Your task to perform on an android device: delete location history Image 0: 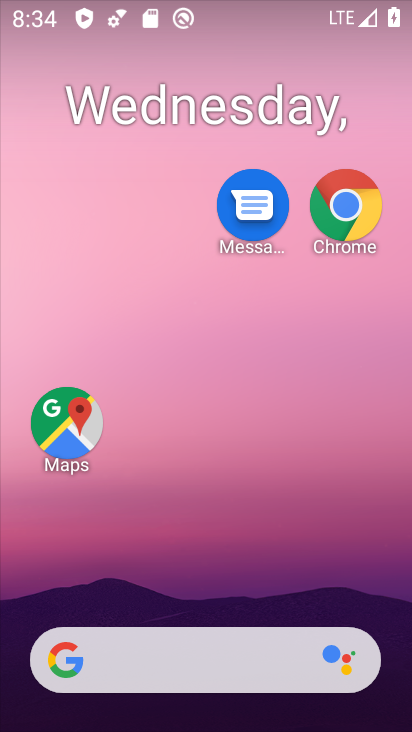
Step 0: click (366, 174)
Your task to perform on an android device: delete location history Image 1: 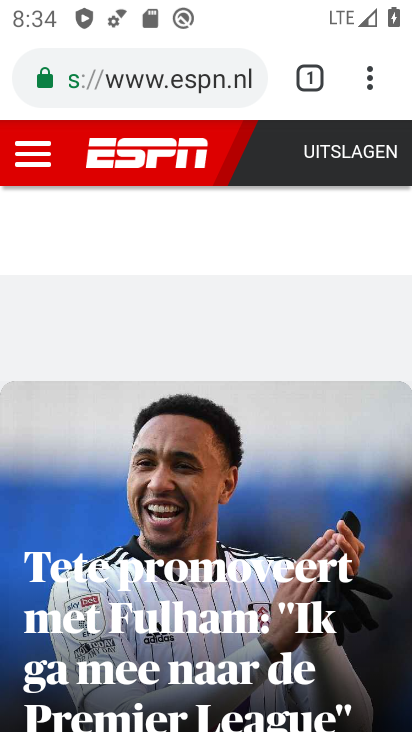
Step 1: drag from (186, 609) to (293, 142)
Your task to perform on an android device: delete location history Image 2: 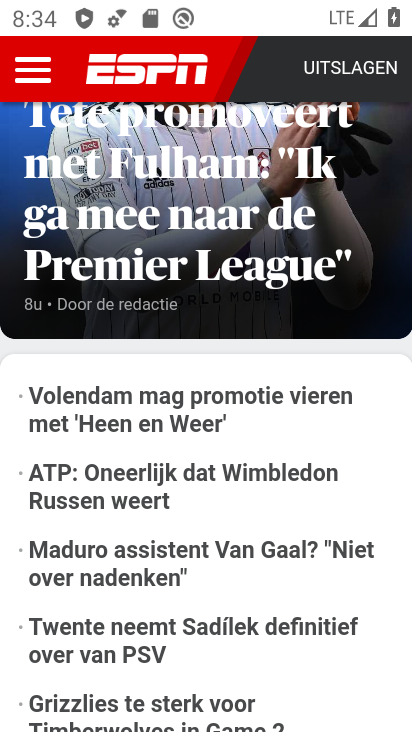
Step 2: drag from (158, 634) to (288, 144)
Your task to perform on an android device: delete location history Image 3: 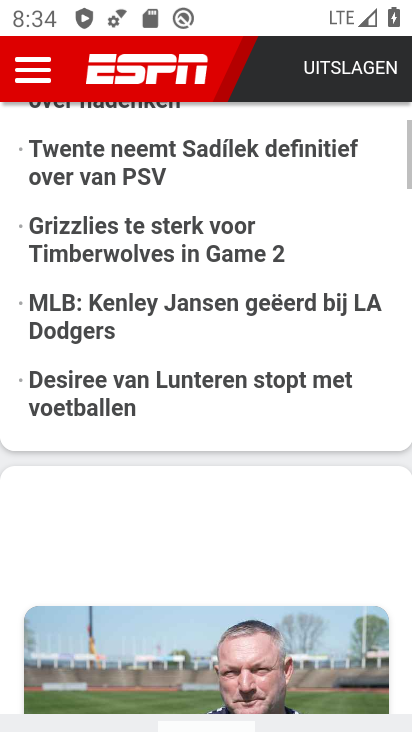
Step 3: drag from (294, 161) to (298, 438)
Your task to perform on an android device: delete location history Image 4: 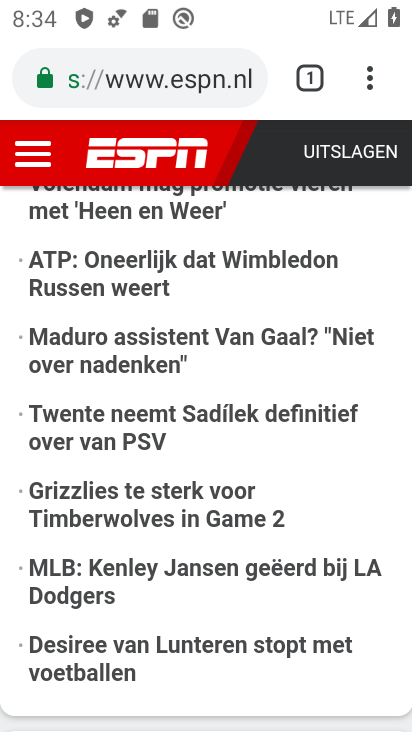
Step 4: press home button
Your task to perform on an android device: delete location history Image 5: 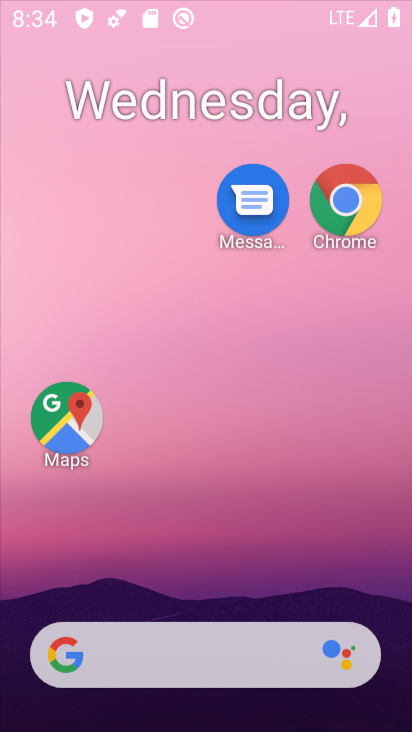
Step 5: drag from (200, 630) to (301, 133)
Your task to perform on an android device: delete location history Image 6: 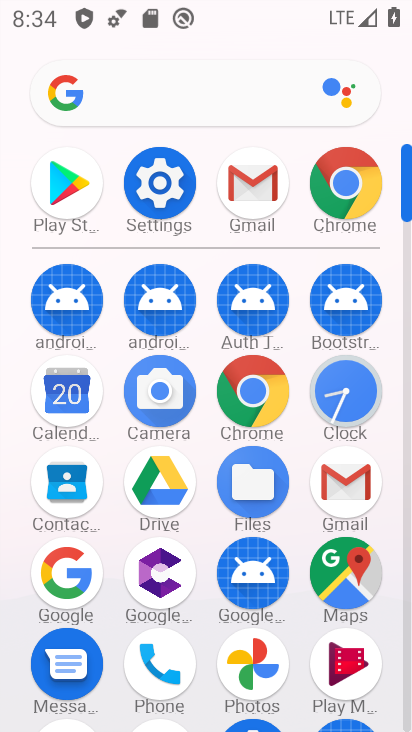
Step 6: drag from (205, 674) to (269, 275)
Your task to perform on an android device: delete location history Image 7: 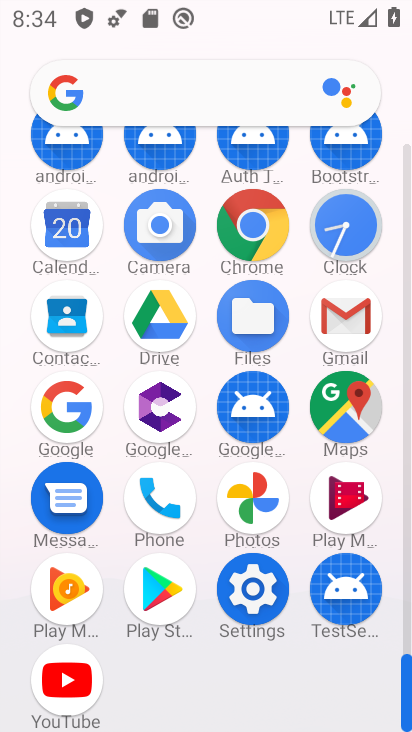
Step 7: click (244, 599)
Your task to perform on an android device: delete location history Image 8: 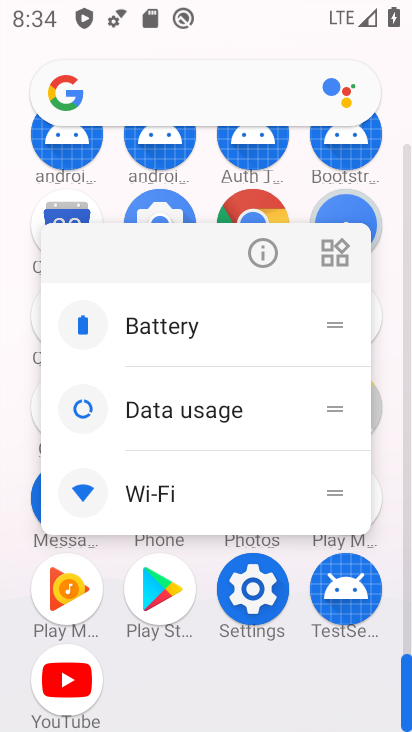
Step 8: click (262, 238)
Your task to perform on an android device: delete location history Image 9: 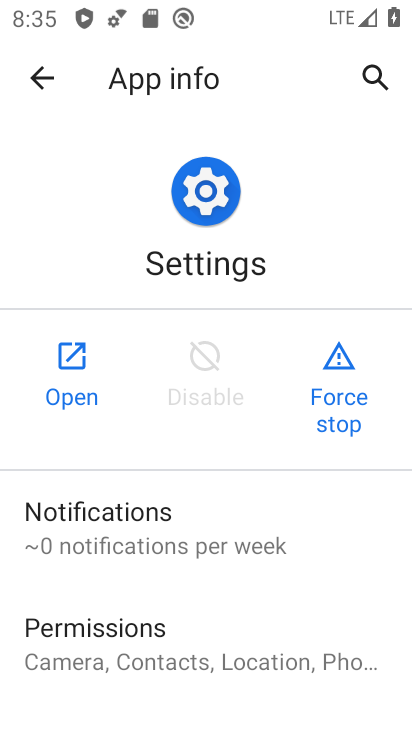
Step 9: click (60, 362)
Your task to perform on an android device: delete location history Image 10: 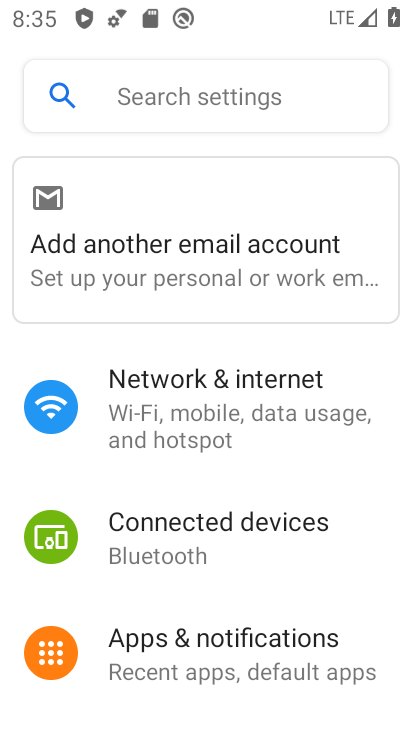
Step 10: drag from (221, 592) to (317, 128)
Your task to perform on an android device: delete location history Image 11: 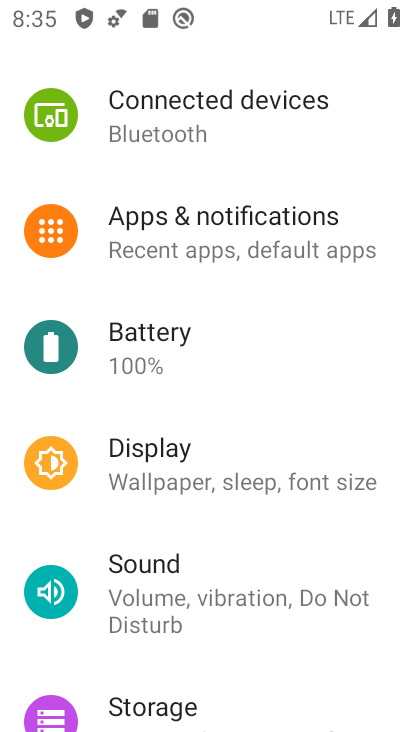
Step 11: drag from (220, 565) to (363, 39)
Your task to perform on an android device: delete location history Image 12: 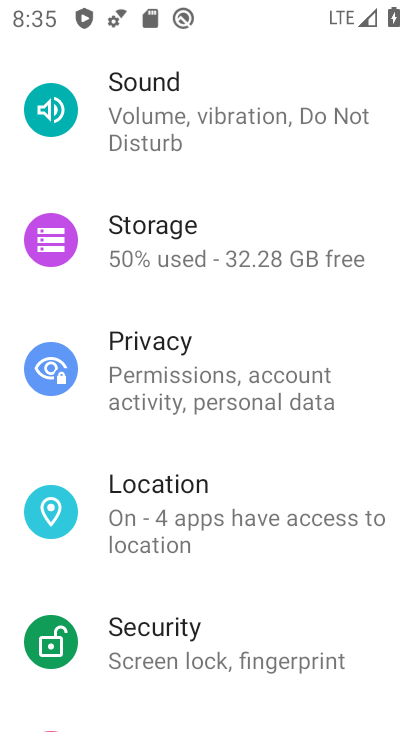
Step 12: click (201, 487)
Your task to perform on an android device: delete location history Image 13: 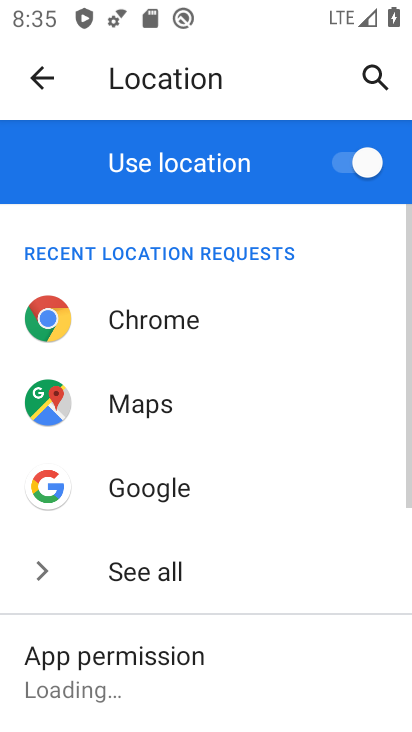
Step 13: drag from (201, 643) to (405, 74)
Your task to perform on an android device: delete location history Image 14: 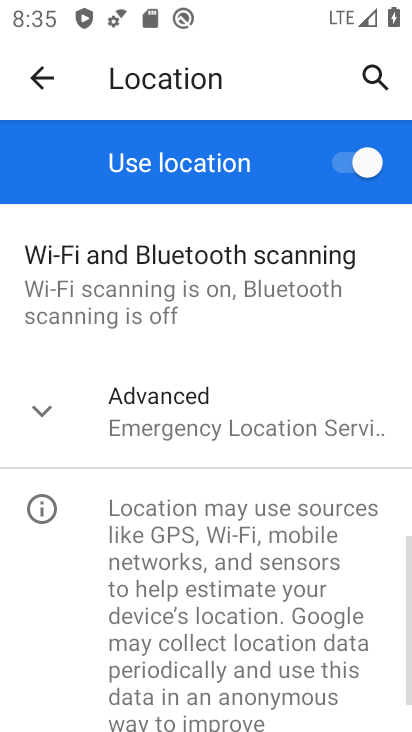
Step 14: click (181, 451)
Your task to perform on an android device: delete location history Image 15: 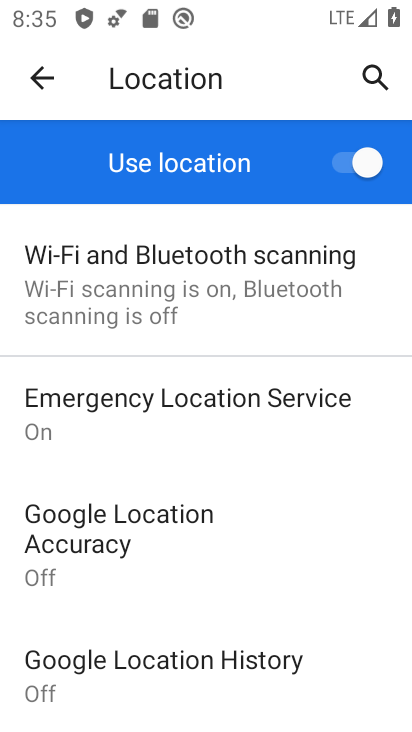
Step 15: click (154, 664)
Your task to perform on an android device: delete location history Image 16: 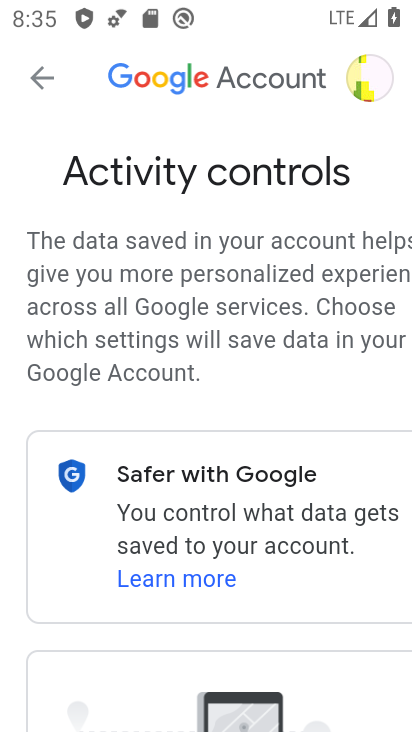
Step 16: drag from (253, 578) to (348, 108)
Your task to perform on an android device: delete location history Image 17: 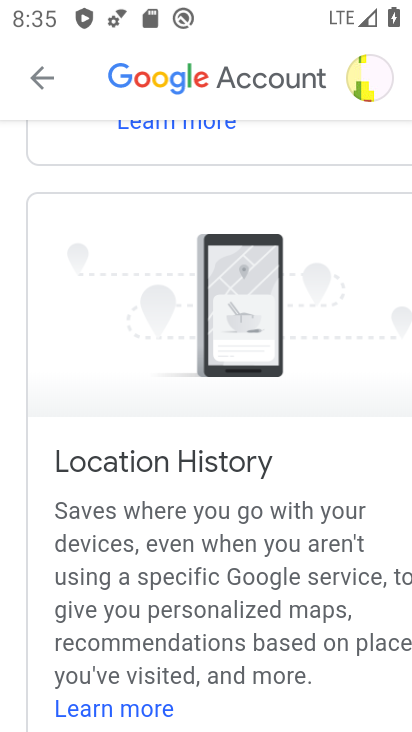
Step 17: drag from (184, 546) to (346, 69)
Your task to perform on an android device: delete location history Image 18: 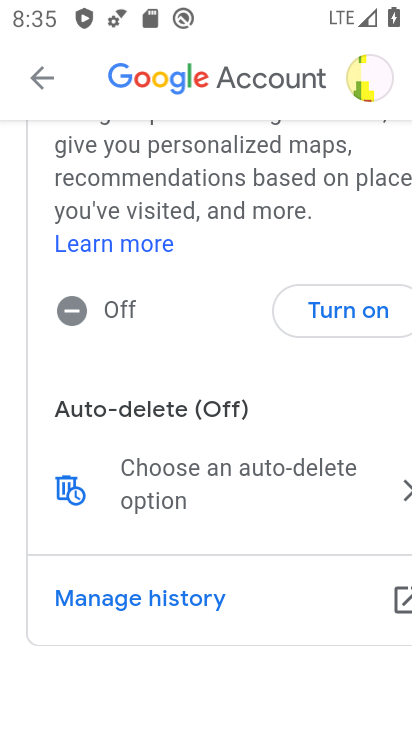
Step 18: click (69, 489)
Your task to perform on an android device: delete location history Image 19: 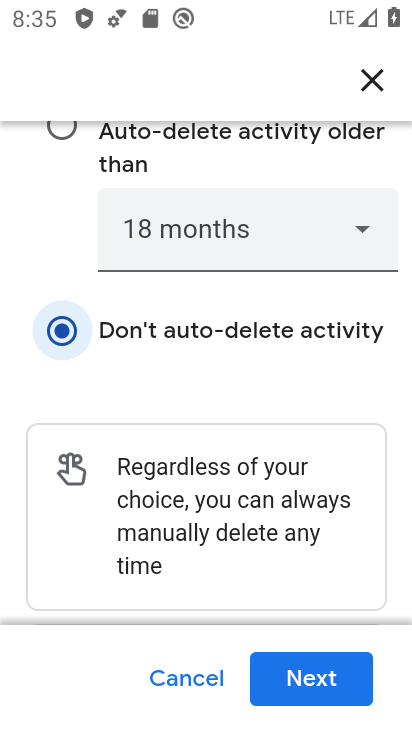
Step 19: click (315, 668)
Your task to perform on an android device: delete location history Image 20: 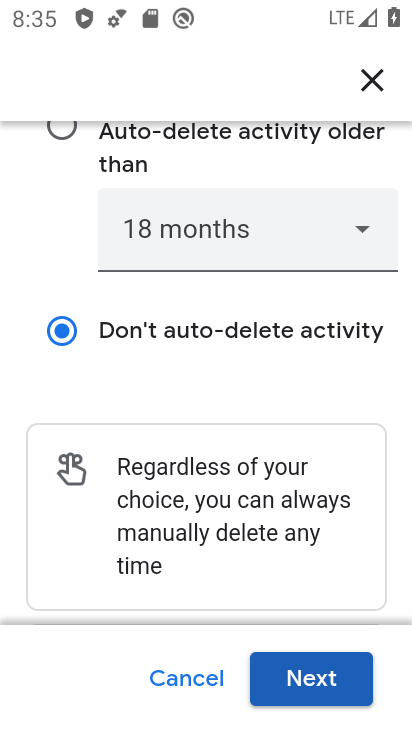
Step 20: click (308, 671)
Your task to perform on an android device: delete location history Image 21: 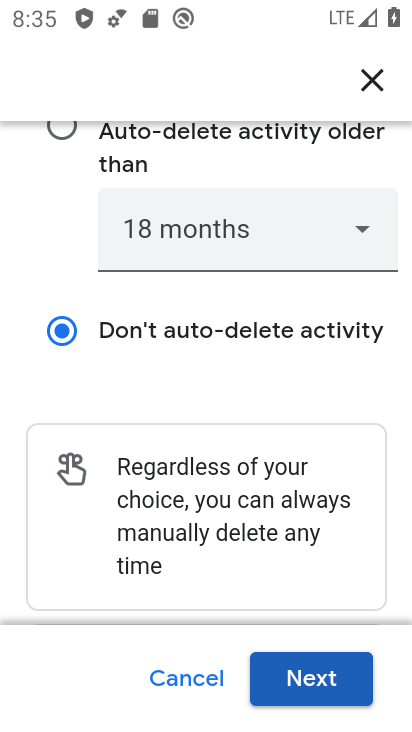
Step 21: click (345, 695)
Your task to perform on an android device: delete location history Image 22: 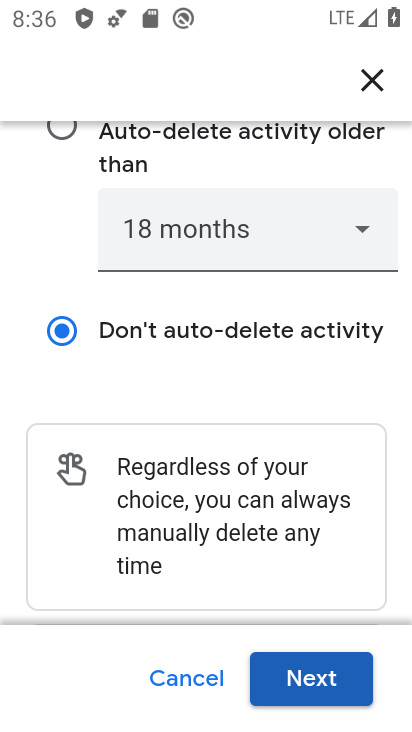
Step 22: click (281, 682)
Your task to perform on an android device: delete location history Image 23: 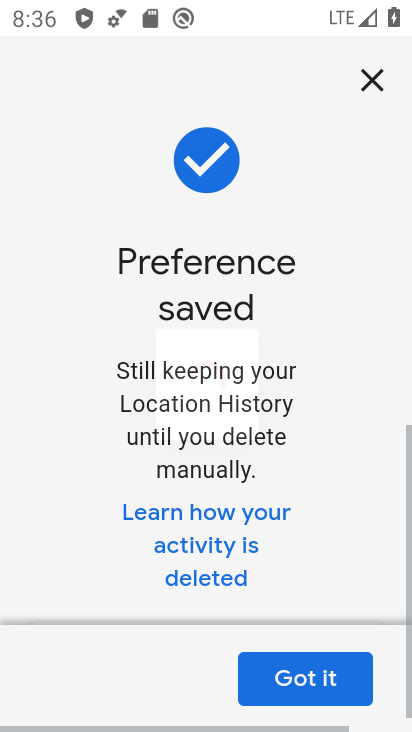
Step 23: task complete